Your task to perform on an android device: turn pop-ups on in chrome Image 0: 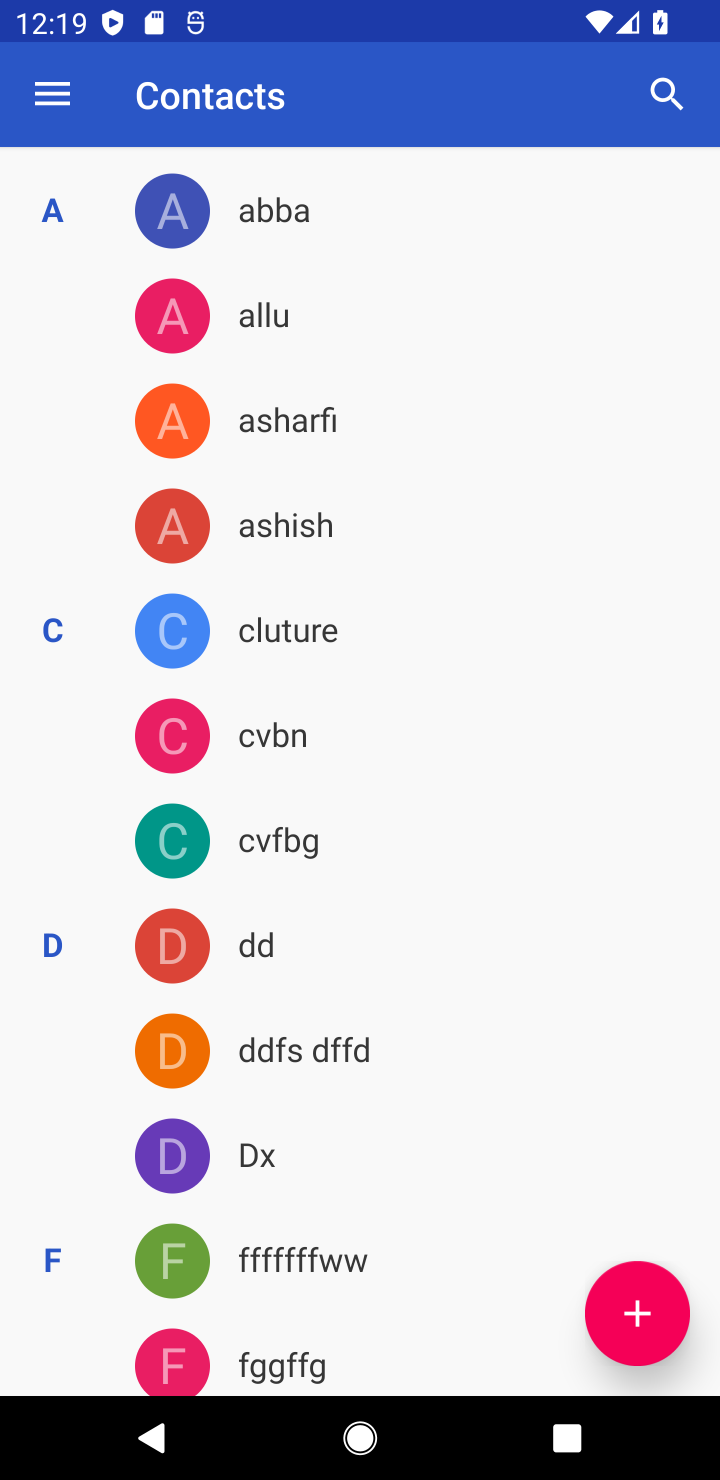
Step 0: press home button
Your task to perform on an android device: turn pop-ups on in chrome Image 1: 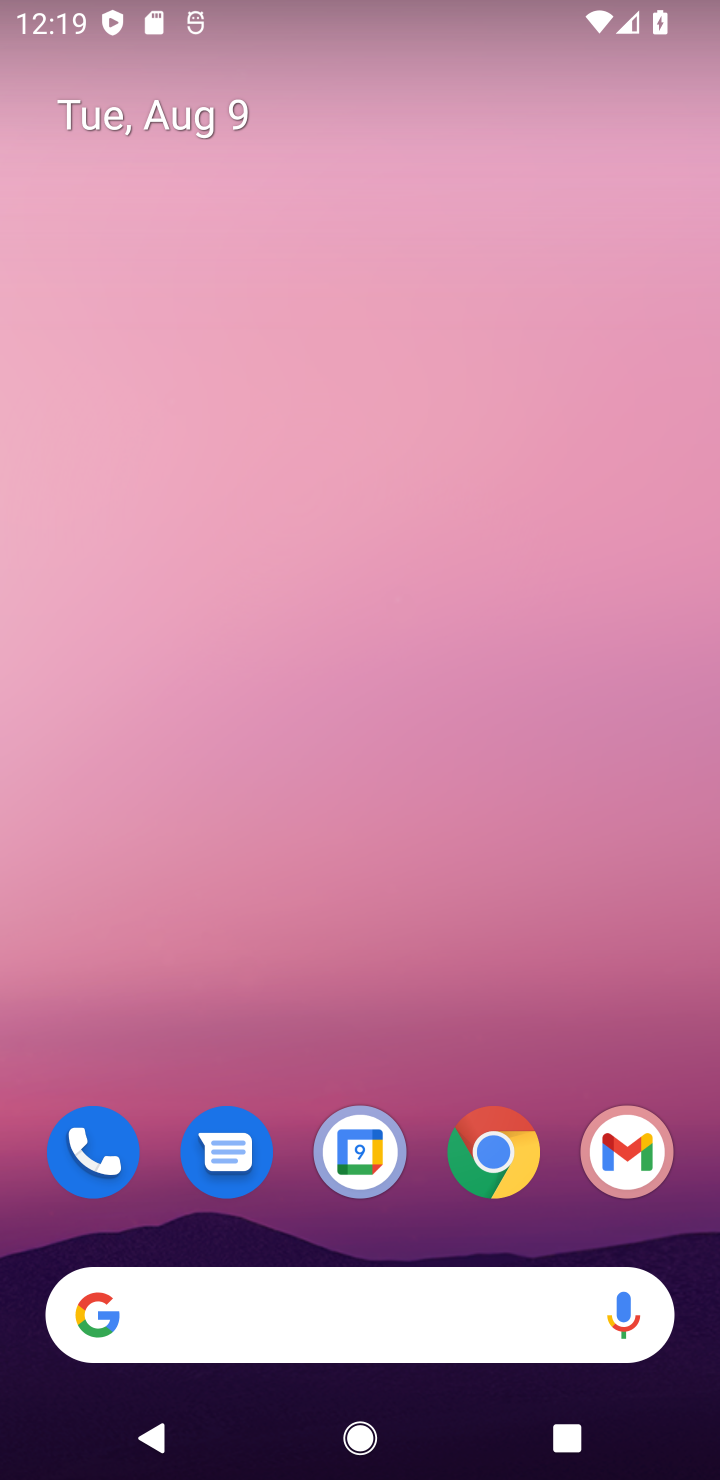
Step 1: click (489, 1144)
Your task to perform on an android device: turn pop-ups on in chrome Image 2: 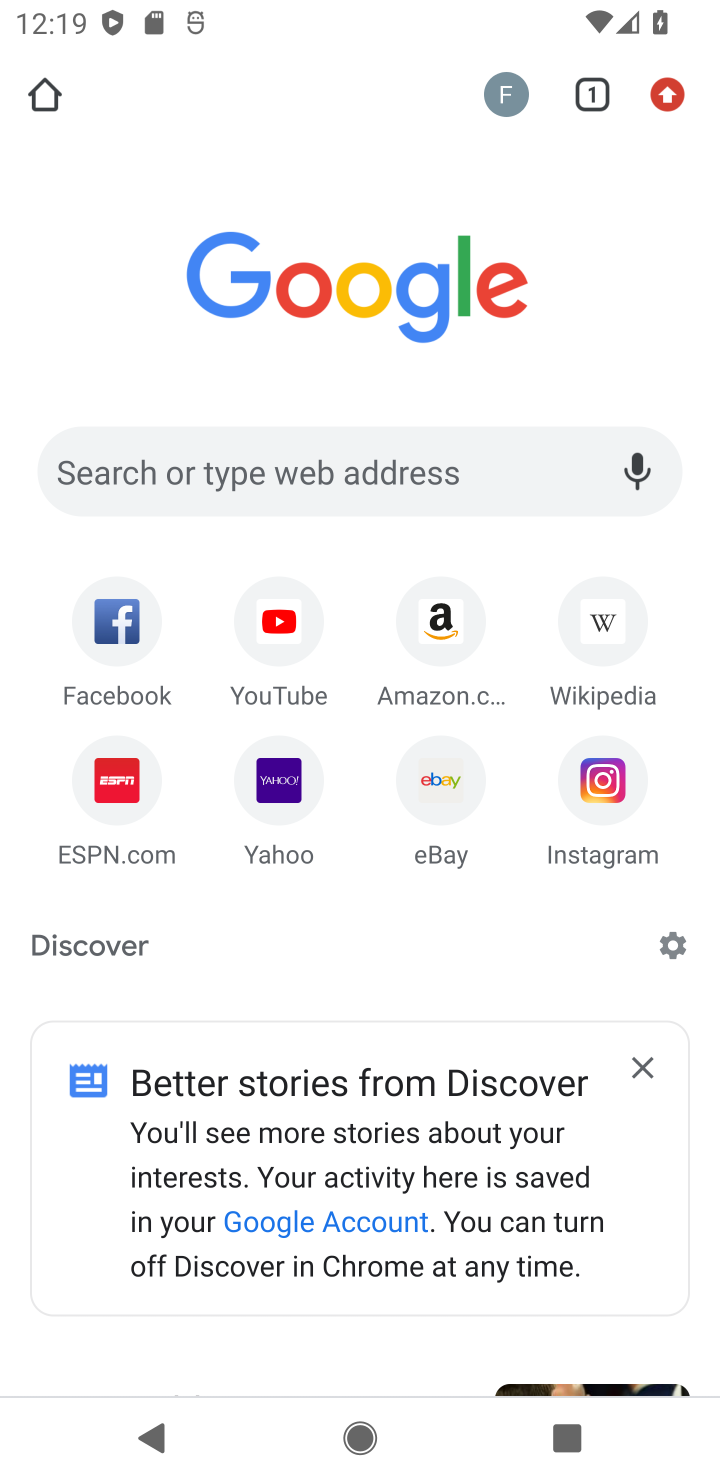
Step 2: click (676, 88)
Your task to perform on an android device: turn pop-ups on in chrome Image 3: 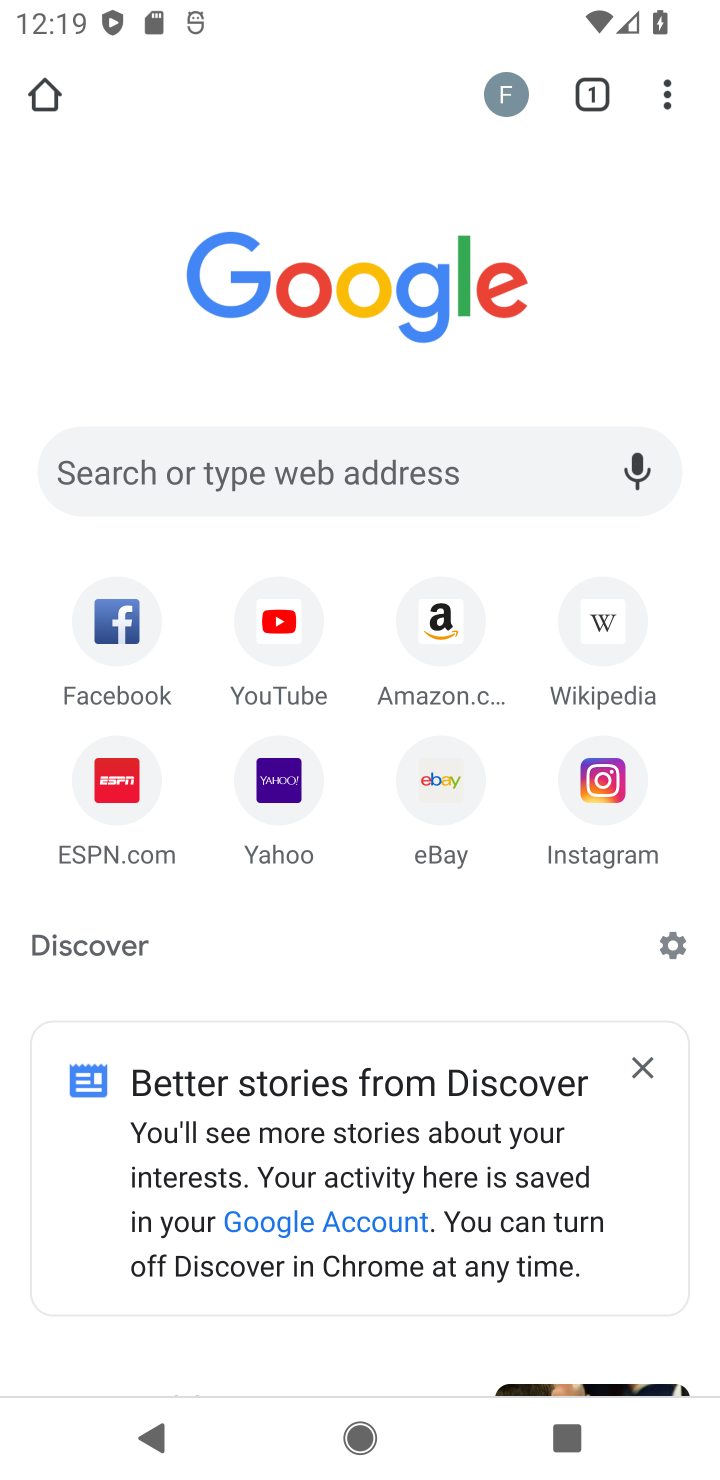
Step 3: click (671, 104)
Your task to perform on an android device: turn pop-ups on in chrome Image 4: 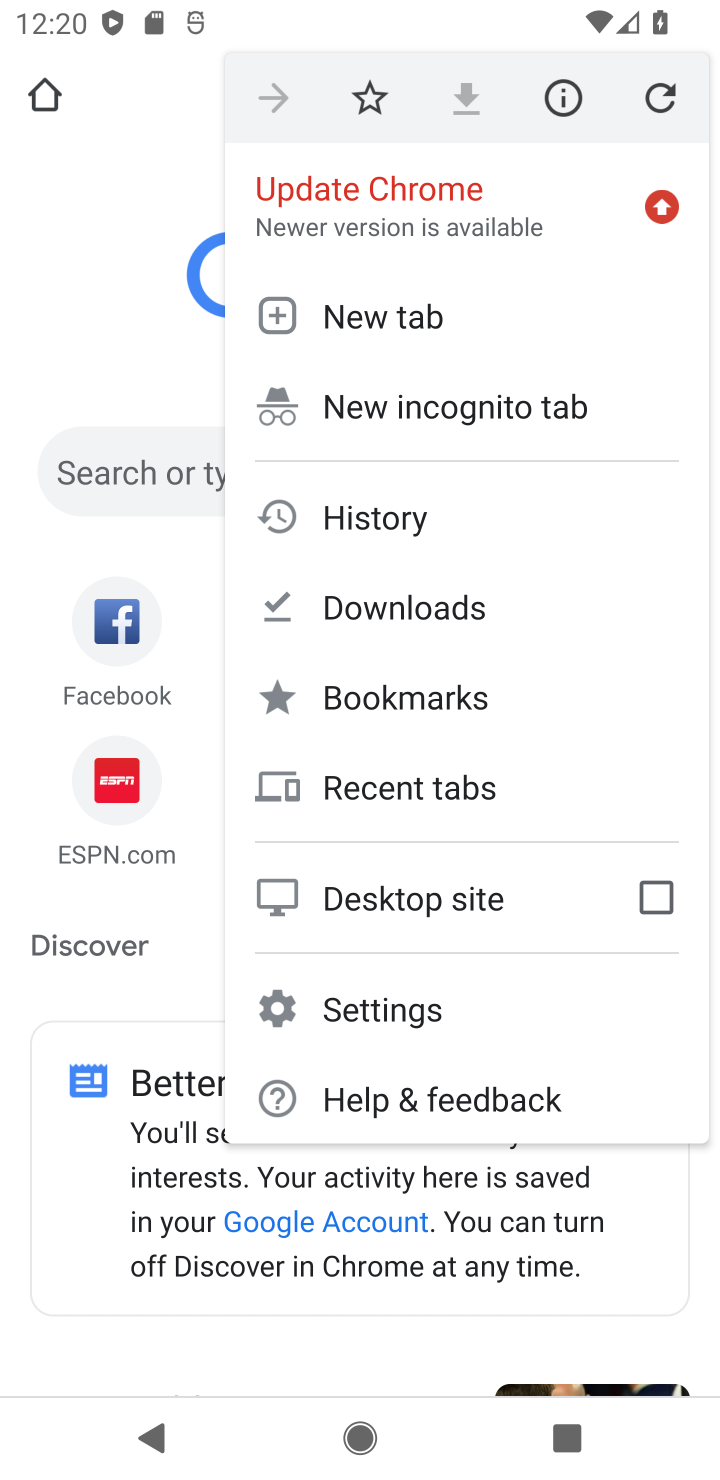
Step 4: click (413, 1005)
Your task to perform on an android device: turn pop-ups on in chrome Image 5: 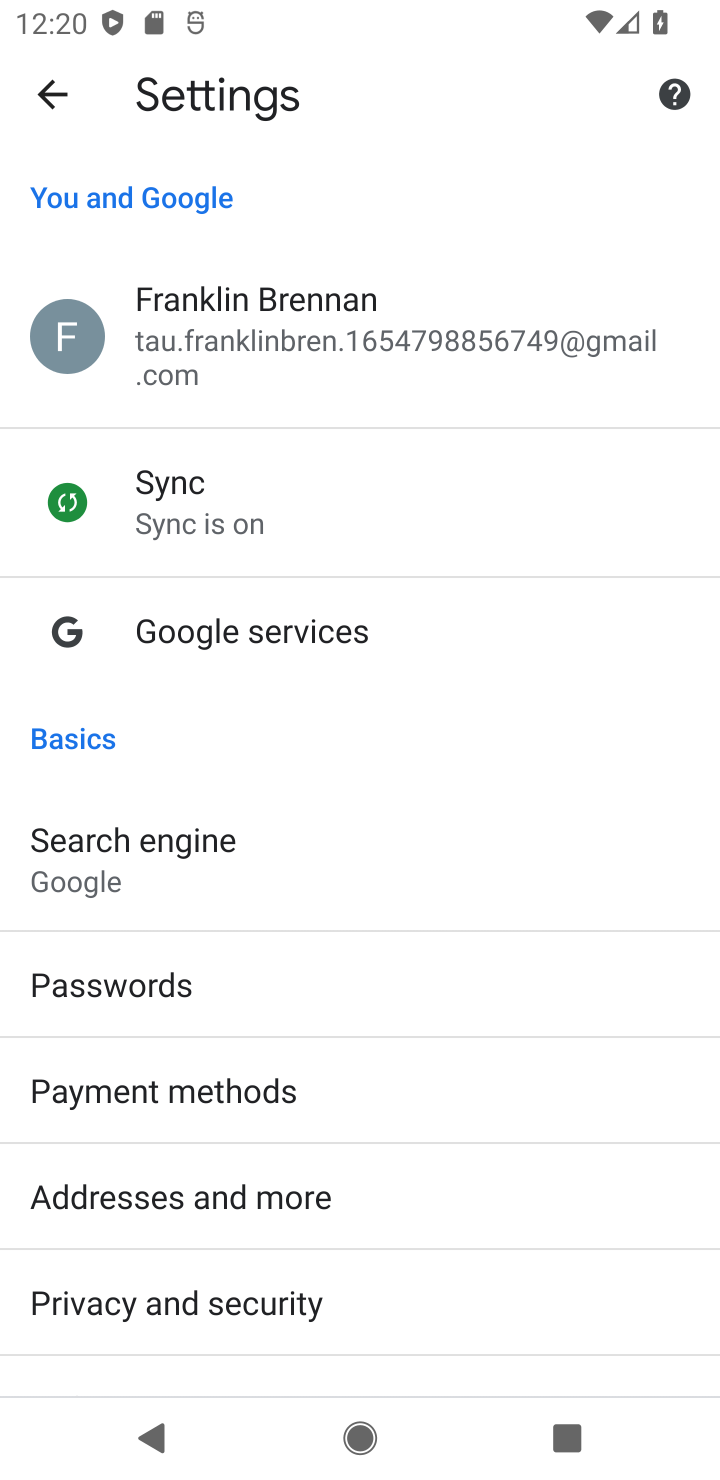
Step 5: drag from (394, 1188) to (240, 244)
Your task to perform on an android device: turn pop-ups on in chrome Image 6: 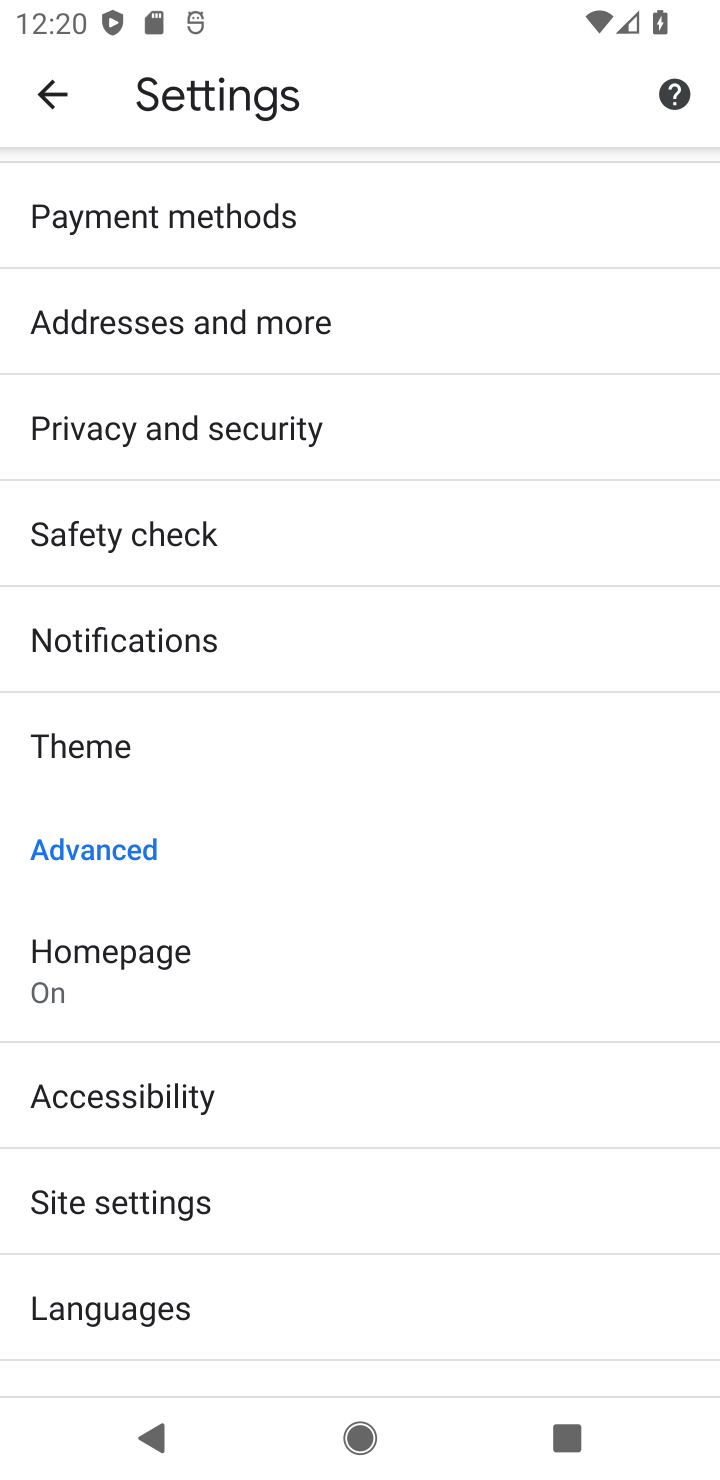
Step 6: click (338, 1204)
Your task to perform on an android device: turn pop-ups on in chrome Image 7: 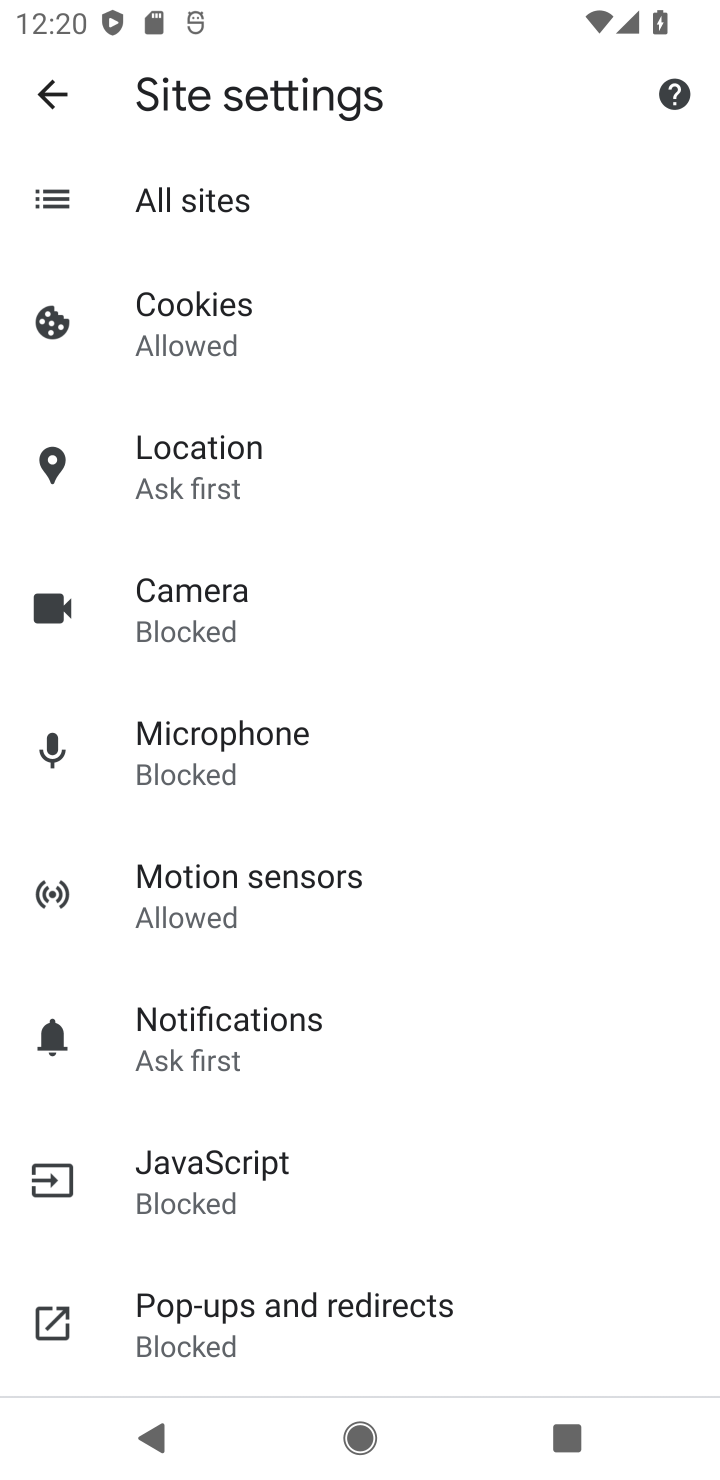
Step 7: click (215, 1291)
Your task to perform on an android device: turn pop-ups on in chrome Image 8: 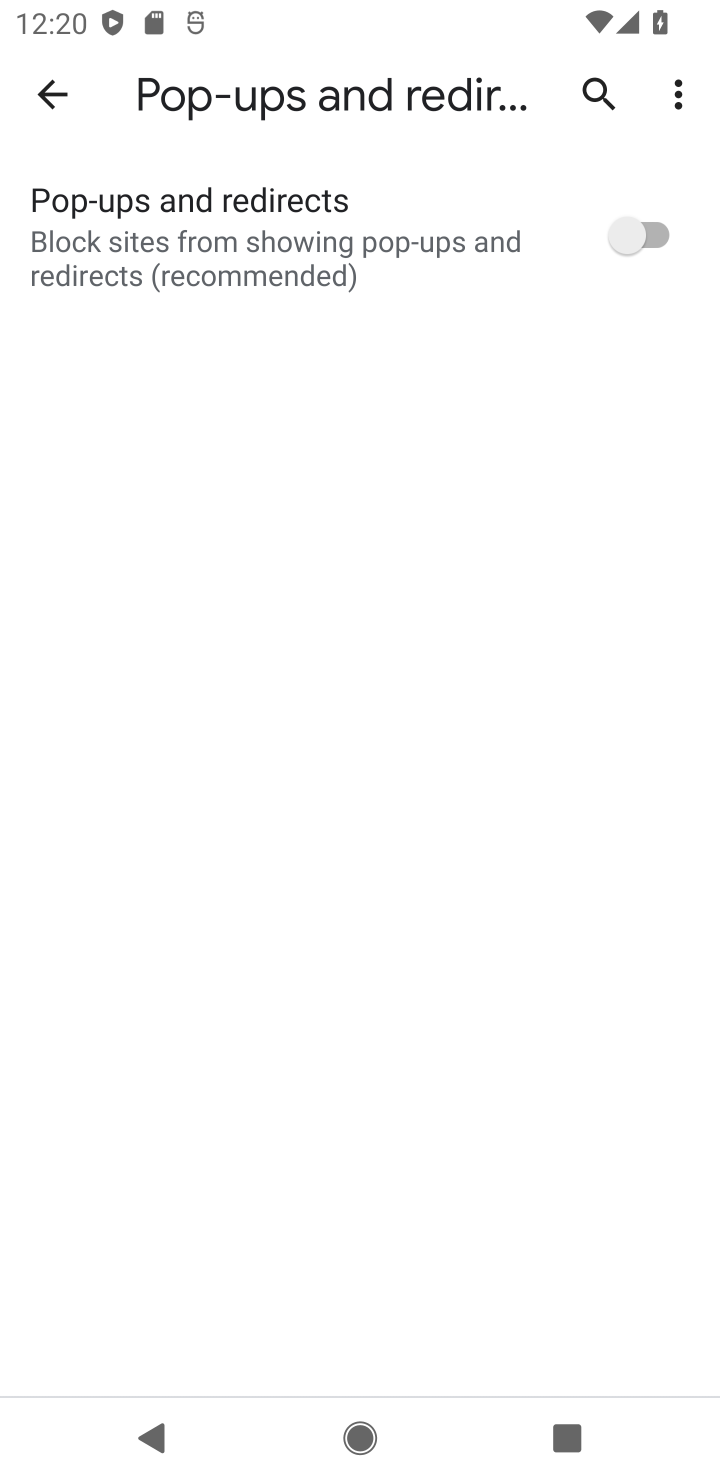
Step 8: click (636, 257)
Your task to perform on an android device: turn pop-ups on in chrome Image 9: 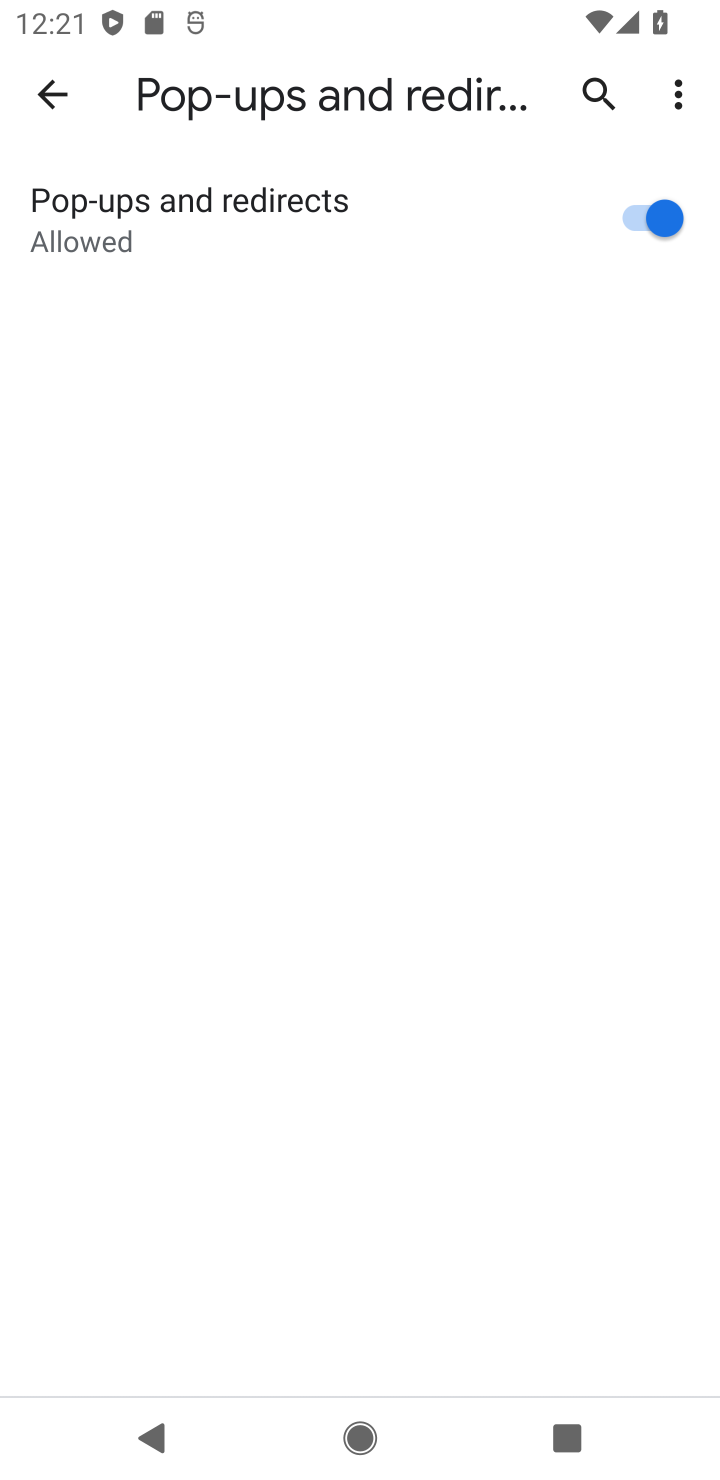
Step 9: task complete